Your task to perform on an android device: refresh tabs in the chrome app Image 0: 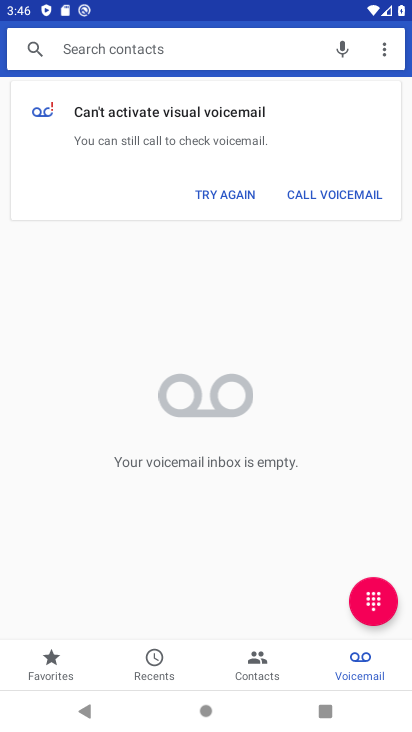
Step 0: press home button
Your task to perform on an android device: refresh tabs in the chrome app Image 1: 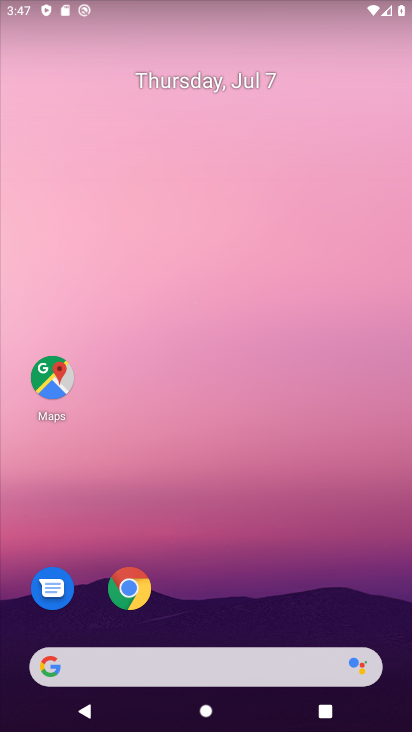
Step 1: drag from (241, 628) to (207, 216)
Your task to perform on an android device: refresh tabs in the chrome app Image 2: 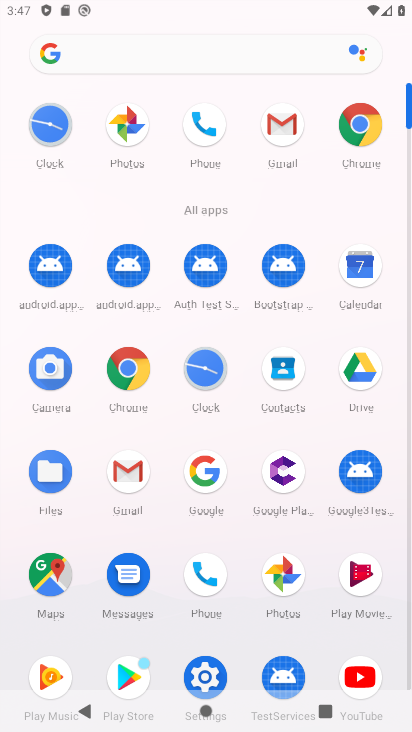
Step 2: click (358, 126)
Your task to perform on an android device: refresh tabs in the chrome app Image 3: 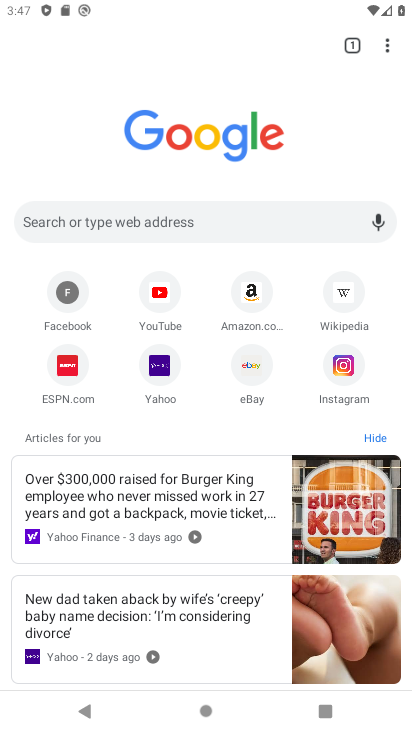
Step 3: click (385, 44)
Your task to perform on an android device: refresh tabs in the chrome app Image 4: 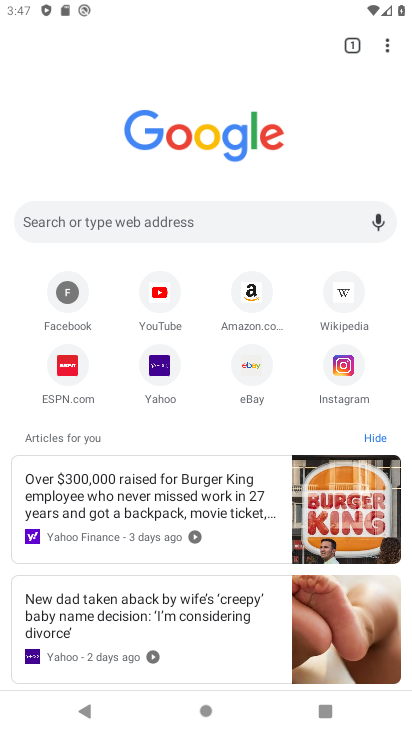
Step 4: task complete